Your task to perform on an android device: Open Maps and search for coffee Image 0: 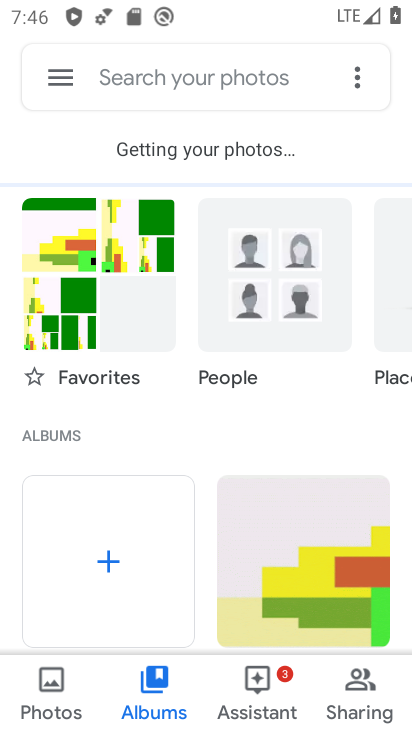
Step 0: press home button
Your task to perform on an android device: Open Maps and search for coffee Image 1: 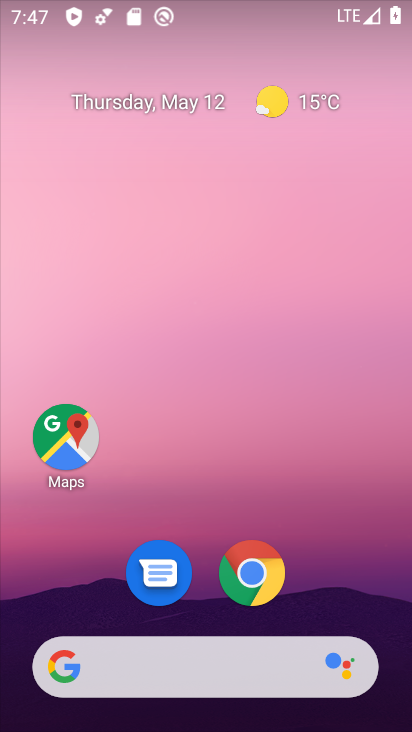
Step 1: click (69, 445)
Your task to perform on an android device: Open Maps and search for coffee Image 2: 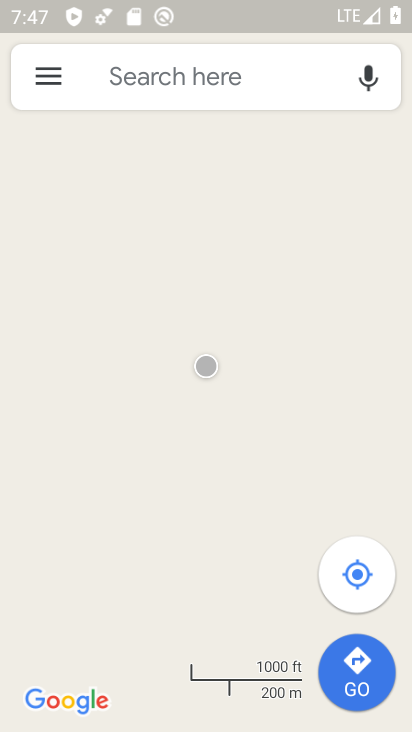
Step 2: click (268, 83)
Your task to perform on an android device: Open Maps and search for coffee Image 3: 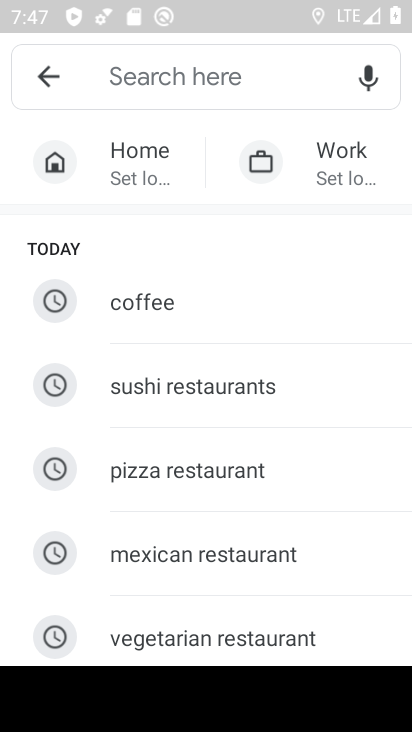
Step 3: click (169, 308)
Your task to perform on an android device: Open Maps and search for coffee Image 4: 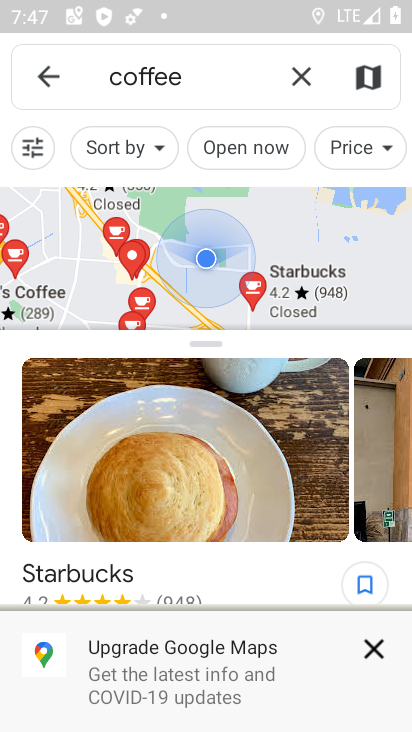
Step 4: task complete